Your task to perform on an android device: What is the news today? Image 0: 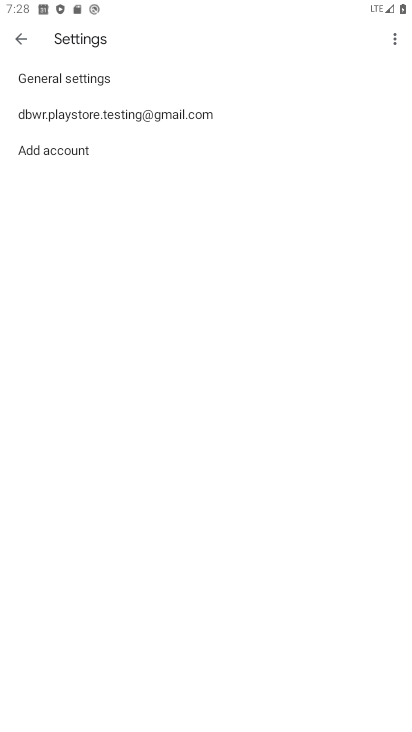
Step 0: press home button
Your task to perform on an android device: What is the news today? Image 1: 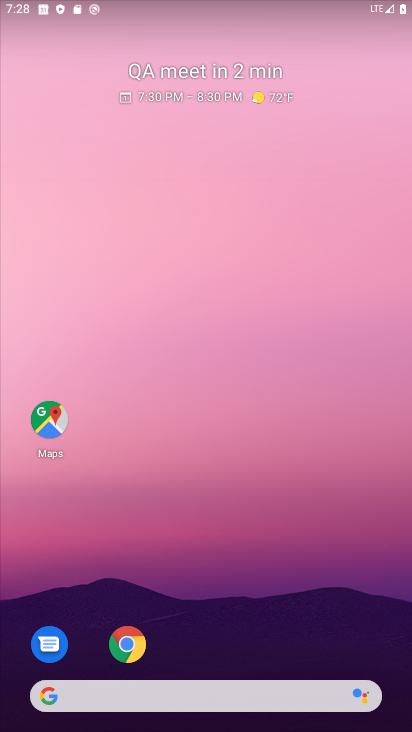
Step 1: drag from (229, 722) to (171, 337)
Your task to perform on an android device: What is the news today? Image 2: 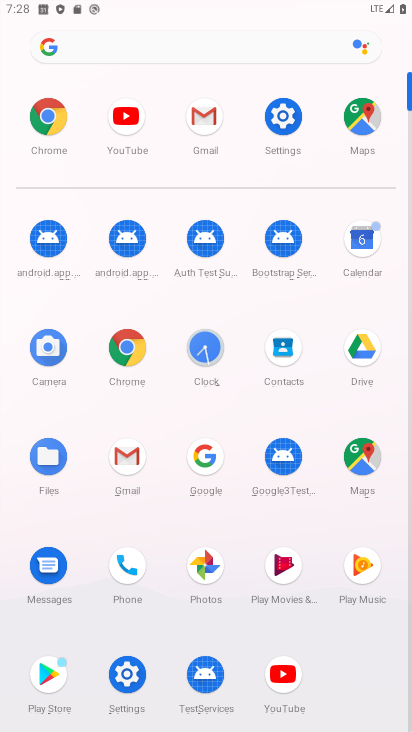
Step 2: click (142, 48)
Your task to perform on an android device: What is the news today? Image 3: 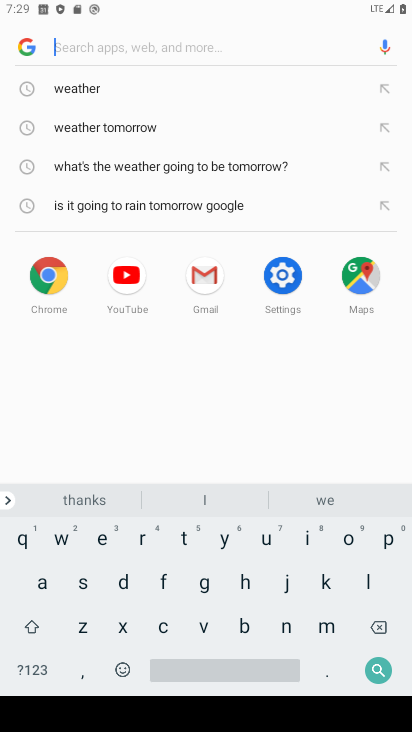
Step 3: click (277, 619)
Your task to perform on an android device: What is the news today? Image 4: 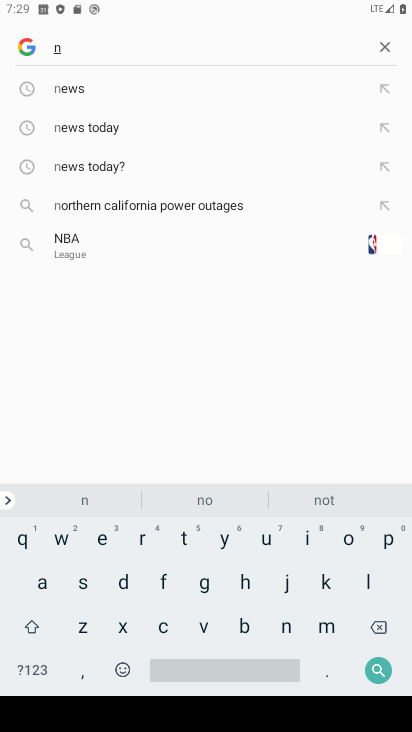
Step 4: click (92, 525)
Your task to perform on an android device: What is the news today? Image 5: 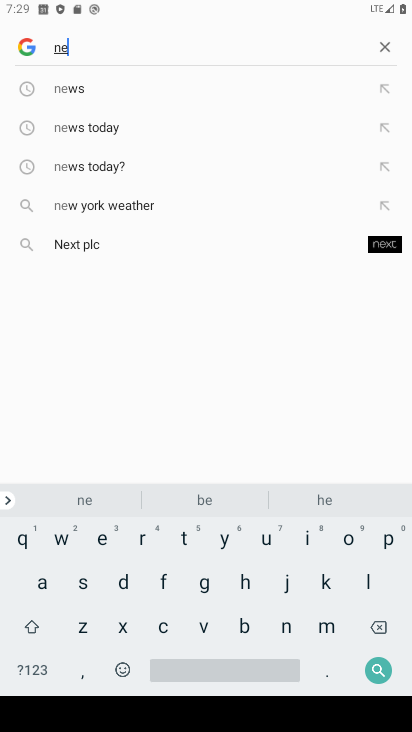
Step 5: click (51, 533)
Your task to perform on an android device: What is the news today? Image 6: 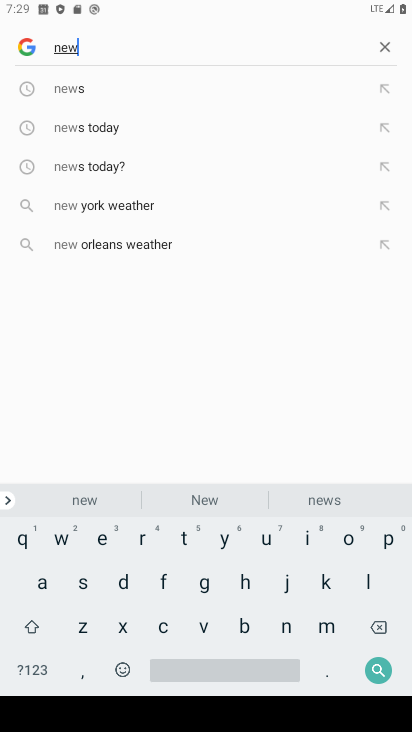
Step 6: click (94, 121)
Your task to perform on an android device: What is the news today? Image 7: 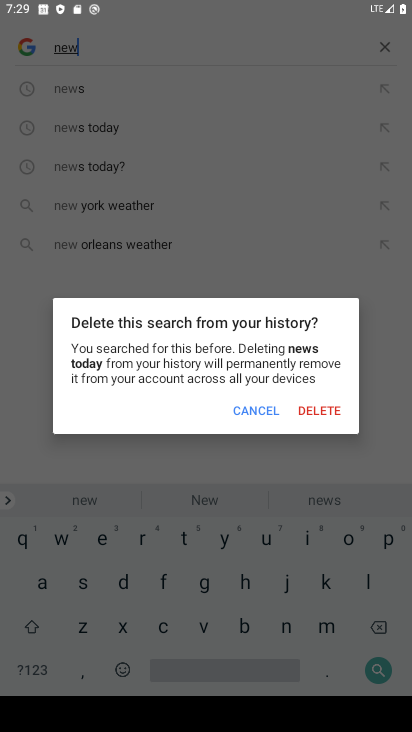
Step 7: click (239, 419)
Your task to perform on an android device: What is the news today? Image 8: 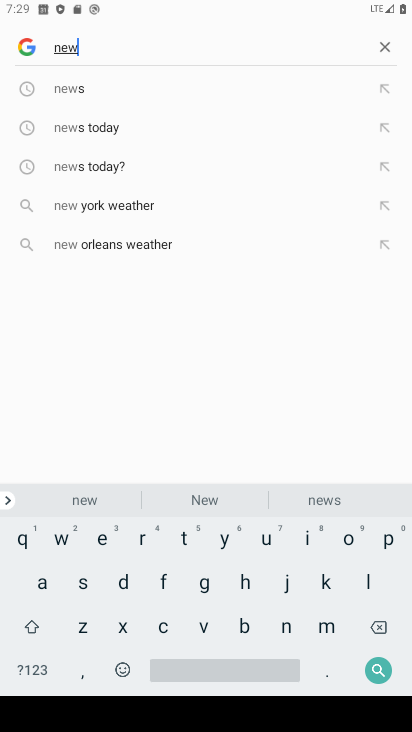
Step 8: click (93, 127)
Your task to perform on an android device: What is the news today? Image 9: 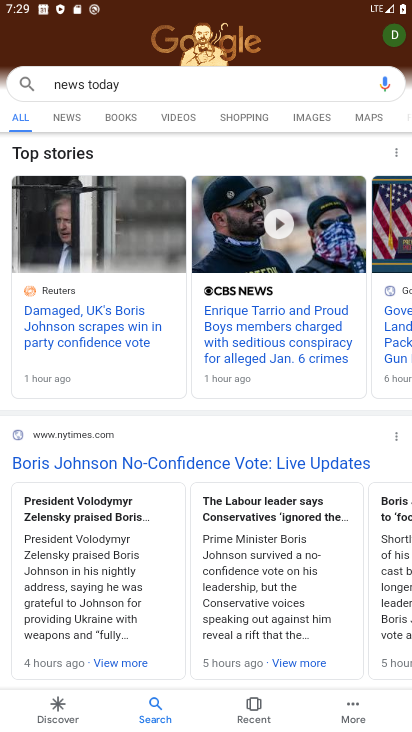
Step 9: task complete